Your task to perform on an android device: refresh tabs in the chrome app Image 0: 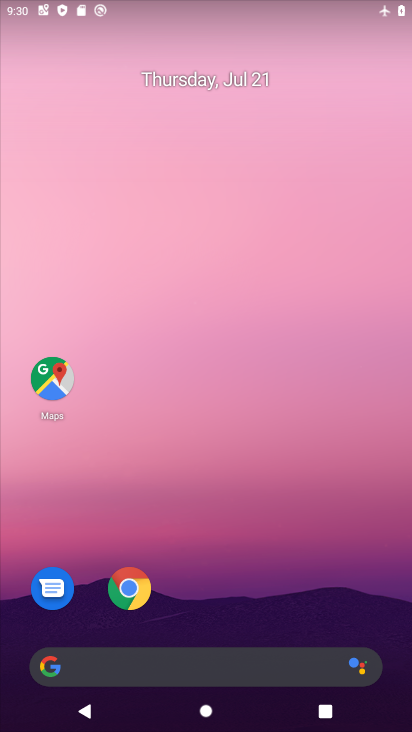
Step 0: click (122, 587)
Your task to perform on an android device: refresh tabs in the chrome app Image 1: 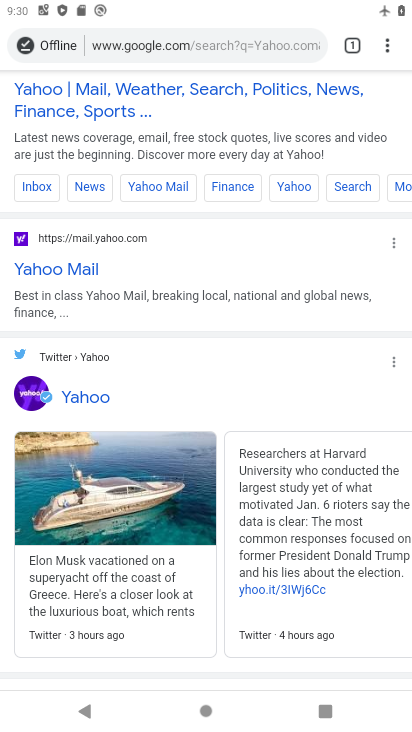
Step 1: click (388, 44)
Your task to perform on an android device: refresh tabs in the chrome app Image 2: 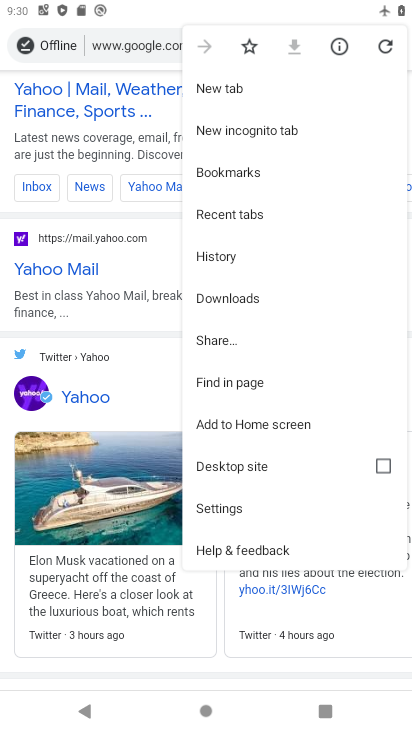
Step 2: click (388, 45)
Your task to perform on an android device: refresh tabs in the chrome app Image 3: 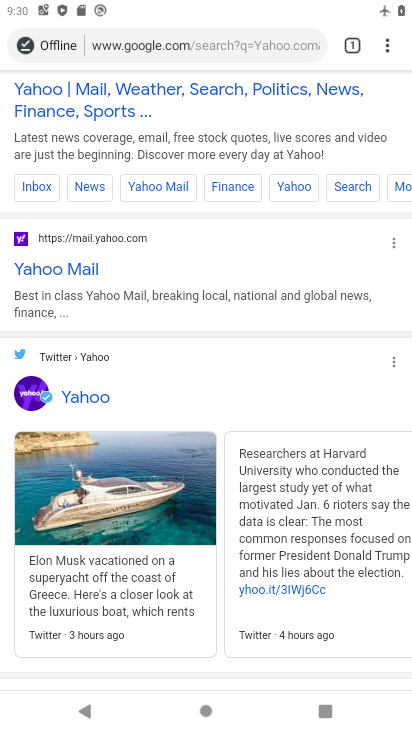
Step 3: task complete